Your task to perform on an android device: Open the map Image 0: 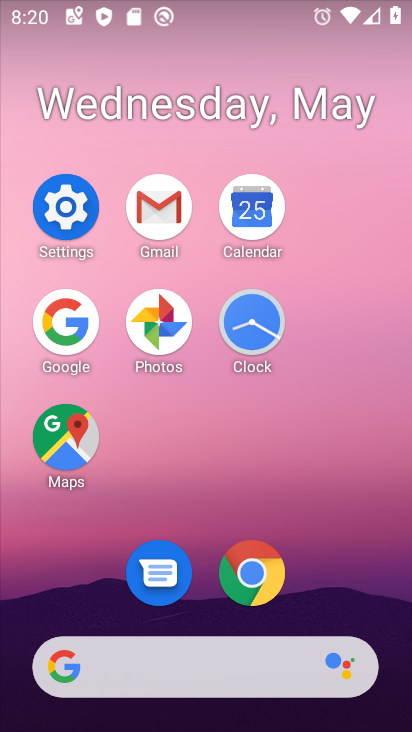
Step 0: click (63, 438)
Your task to perform on an android device: Open the map Image 1: 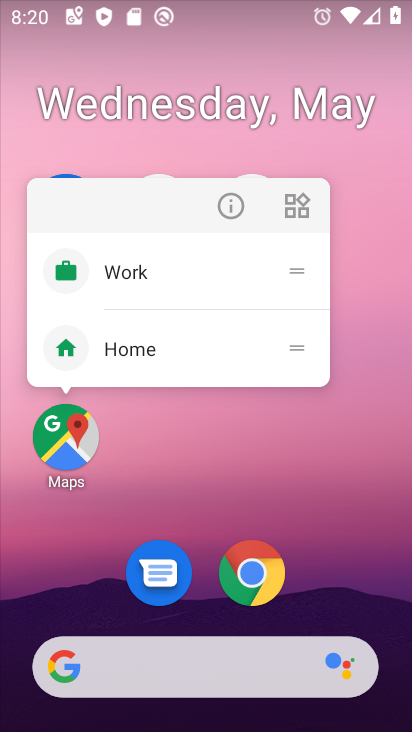
Step 1: click (44, 456)
Your task to perform on an android device: Open the map Image 2: 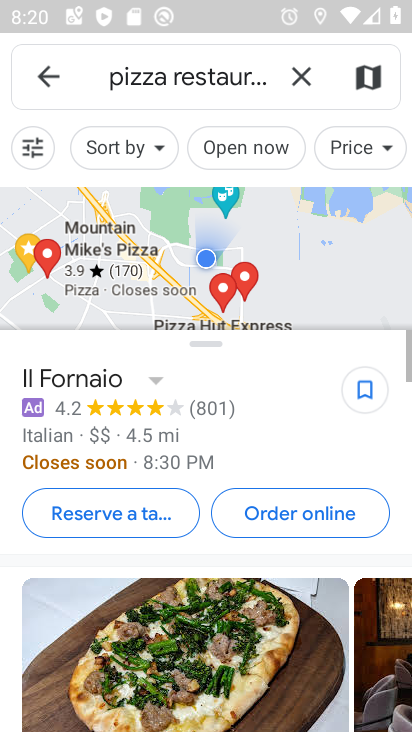
Step 2: task complete